Your task to perform on an android device: change the clock display to show seconds Image 0: 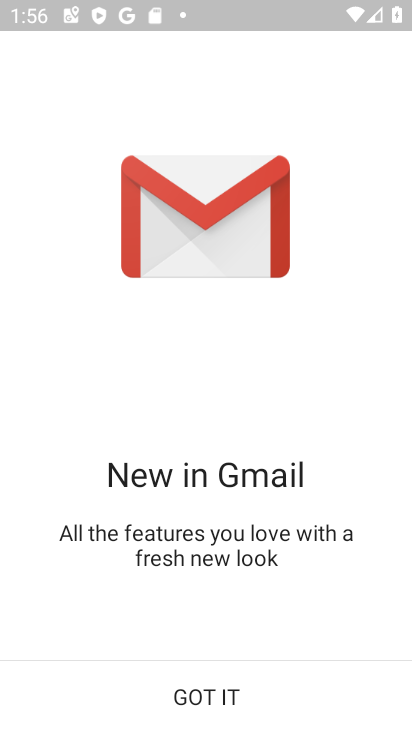
Step 0: press home button
Your task to perform on an android device: change the clock display to show seconds Image 1: 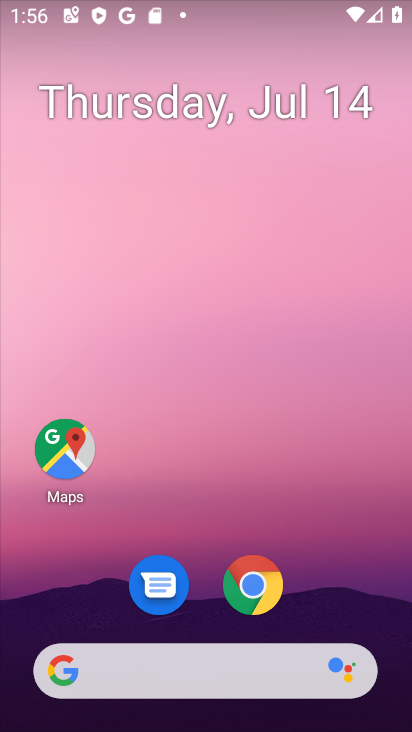
Step 1: drag from (355, 580) to (385, 19)
Your task to perform on an android device: change the clock display to show seconds Image 2: 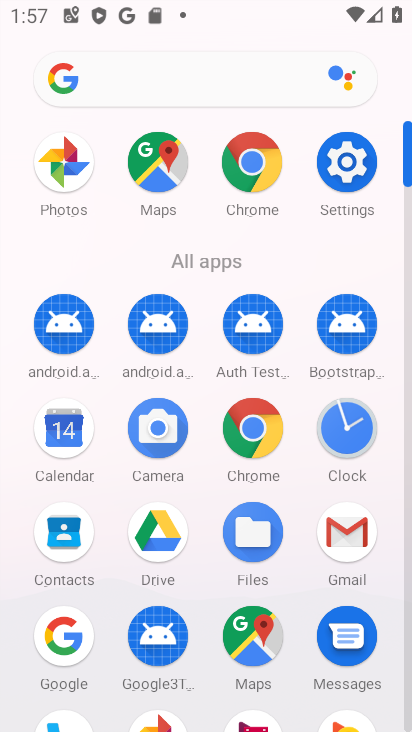
Step 2: click (342, 415)
Your task to perform on an android device: change the clock display to show seconds Image 3: 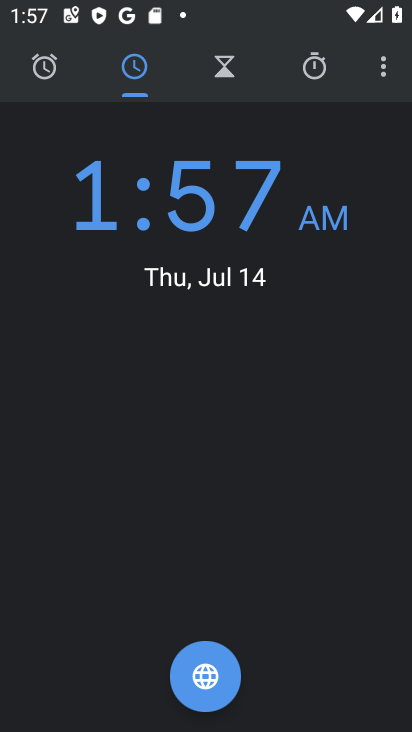
Step 3: click (389, 71)
Your task to perform on an android device: change the clock display to show seconds Image 4: 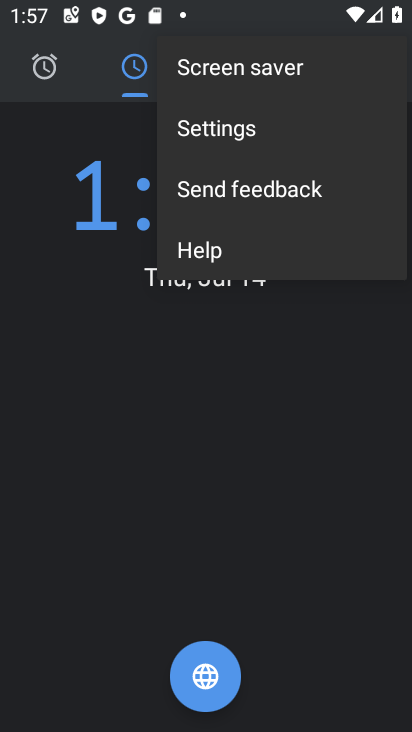
Step 4: click (286, 127)
Your task to perform on an android device: change the clock display to show seconds Image 5: 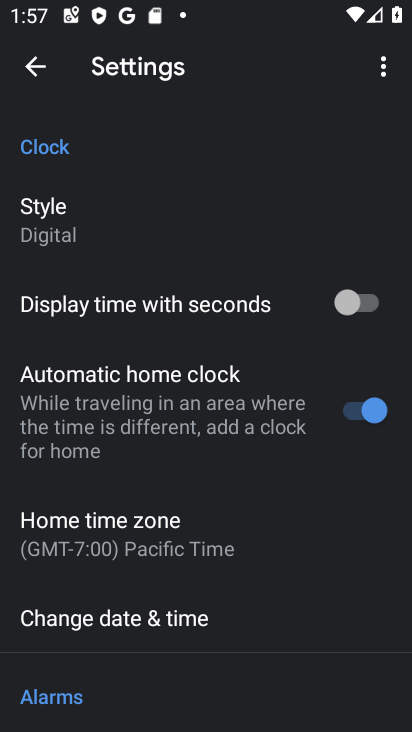
Step 5: click (361, 298)
Your task to perform on an android device: change the clock display to show seconds Image 6: 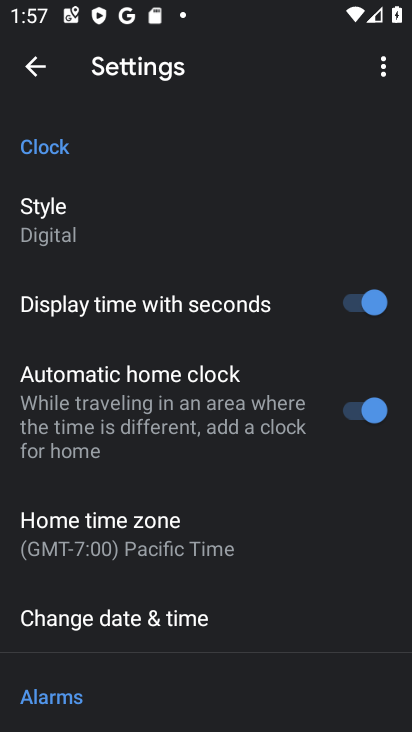
Step 6: click (38, 64)
Your task to perform on an android device: change the clock display to show seconds Image 7: 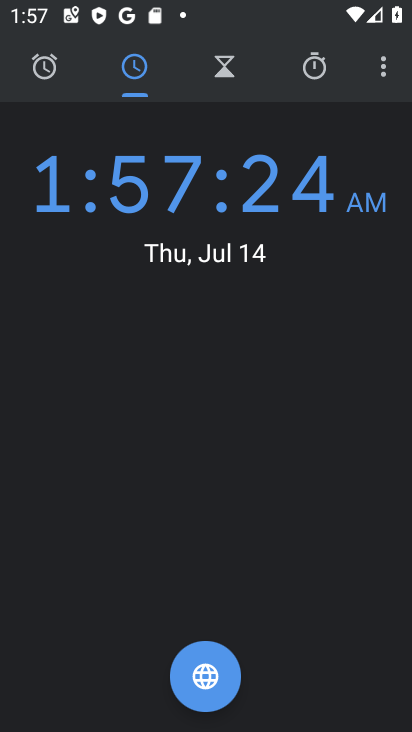
Step 7: task complete